Your task to perform on an android device: Do I have any events this weekend? Image 0: 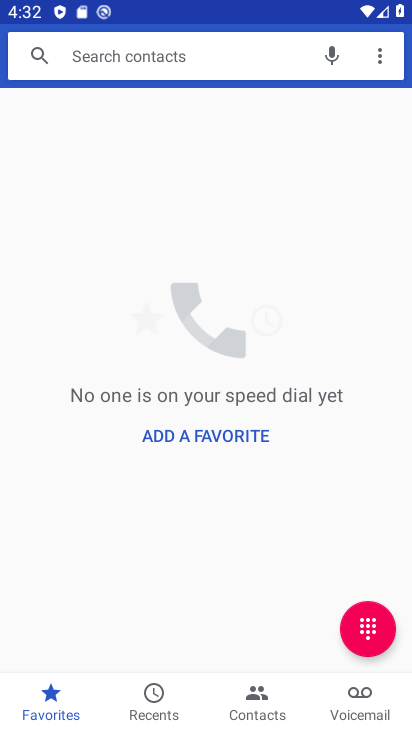
Step 0: press home button
Your task to perform on an android device: Do I have any events this weekend? Image 1: 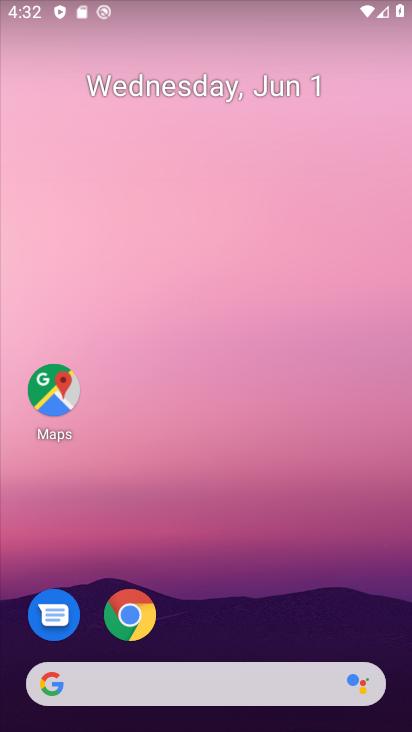
Step 1: drag from (196, 653) to (309, 150)
Your task to perform on an android device: Do I have any events this weekend? Image 2: 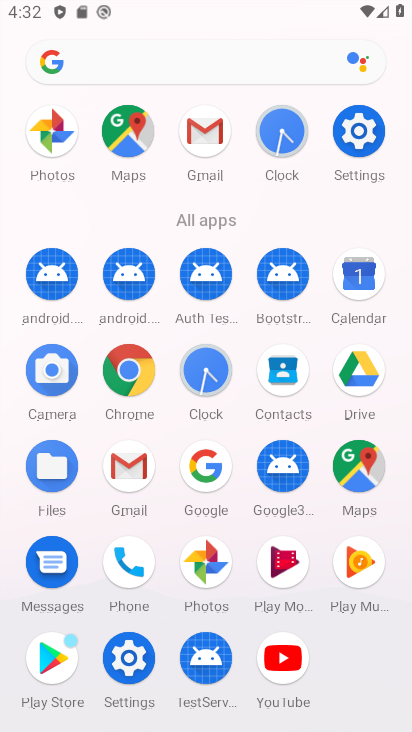
Step 2: drag from (131, 627) to (207, 421)
Your task to perform on an android device: Do I have any events this weekend? Image 3: 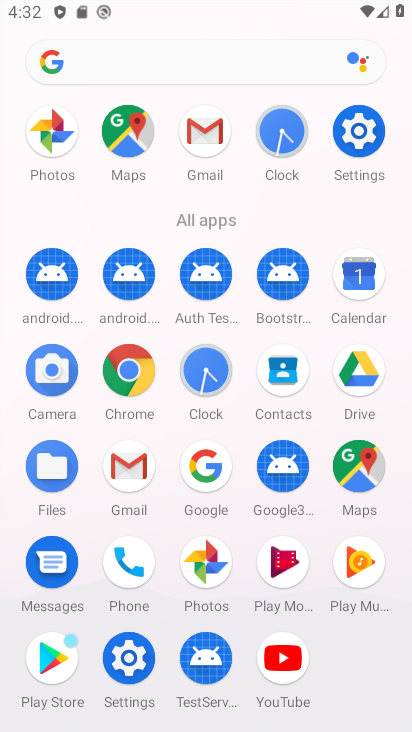
Step 3: click (361, 288)
Your task to perform on an android device: Do I have any events this weekend? Image 4: 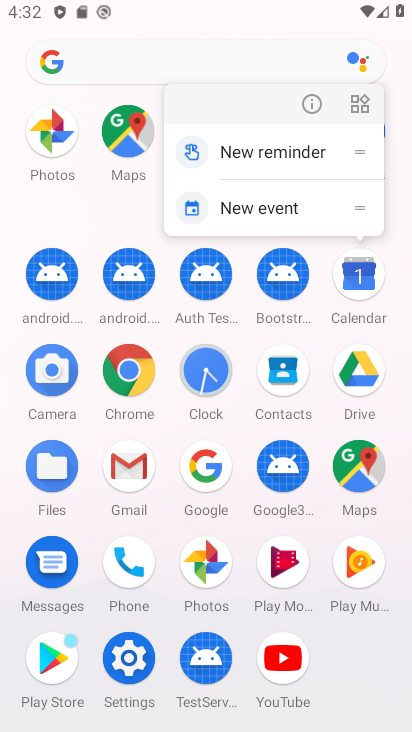
Step 4: click (358, 290)
Your task to perform on an android device: Do I have any events this weekend? Image 5: 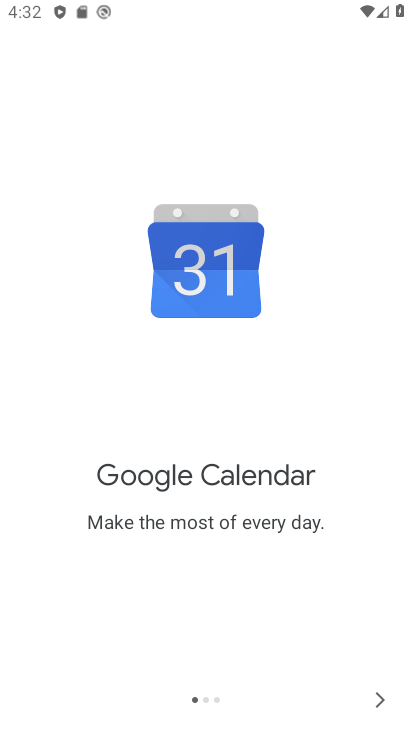
Step 5: click (384, 702)
Your task to perform on an android device: Do I have any events this weekend? Image 6: 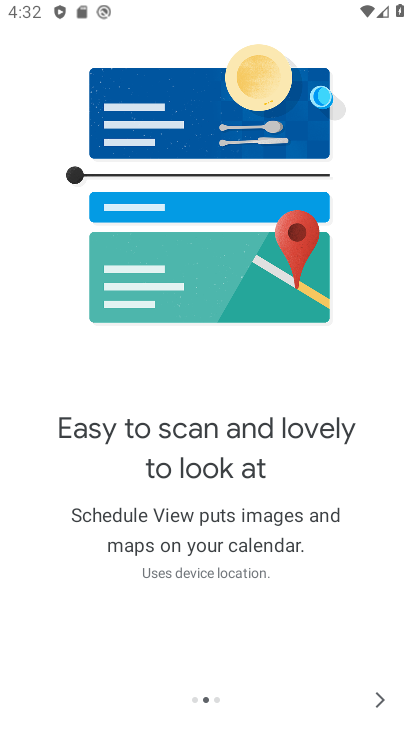
Step 6: click (385, 702)
Your task to perform on an android device: Do I have any events this weekend? Image 7: 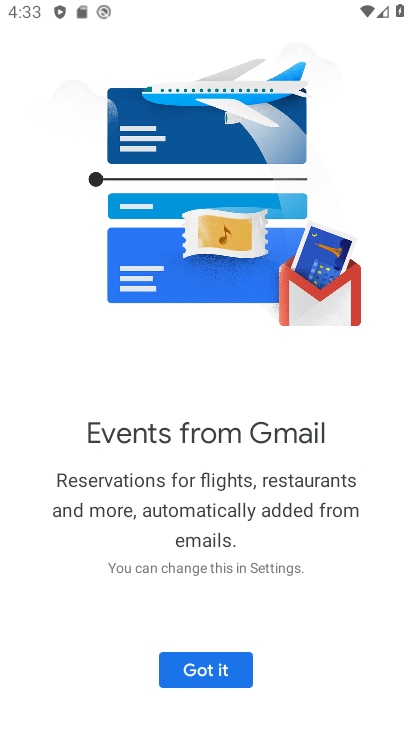
Step 7: click (220, 675)
Your task to perform on an android device: Do I have any events this weekend? Image 8: 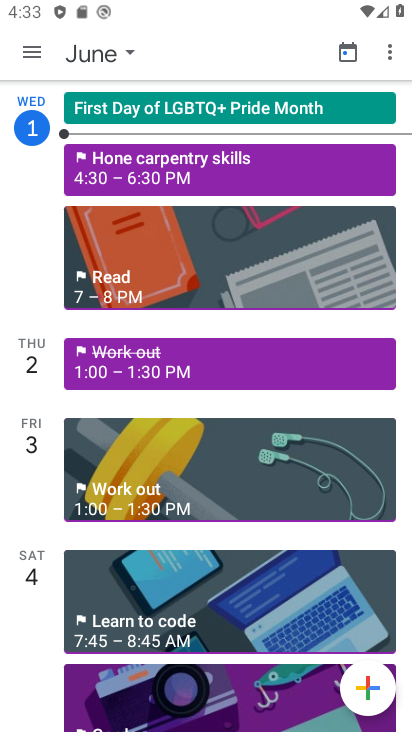
Step 8: drag from (274, 499) to (300, 662)
Your task to perform on an android device: Do I have any events this weekend? Image 9: 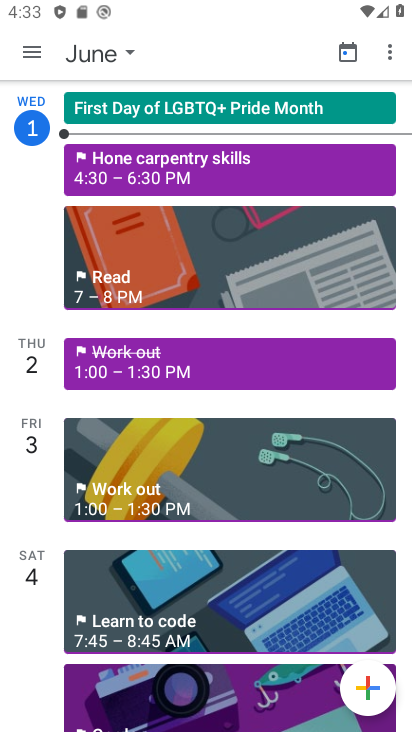
Step 9: click (30, 48)
Your task to perform on an android device: Do I have any events this weekend? Image 10: 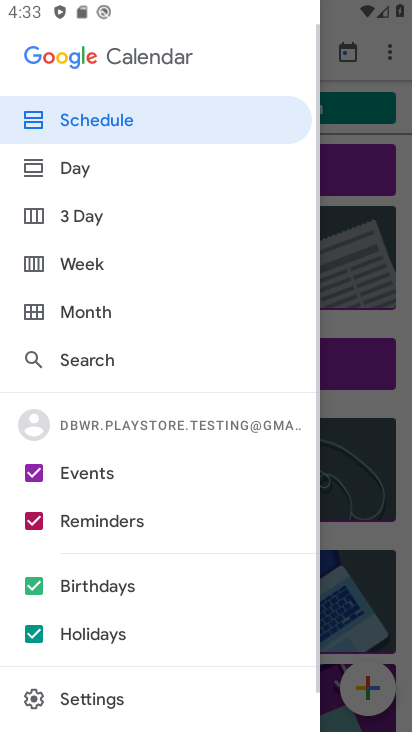
Step 10: click (137, 271)
Your task to perform on an android device: Do I have any events this weekend? Image 11: 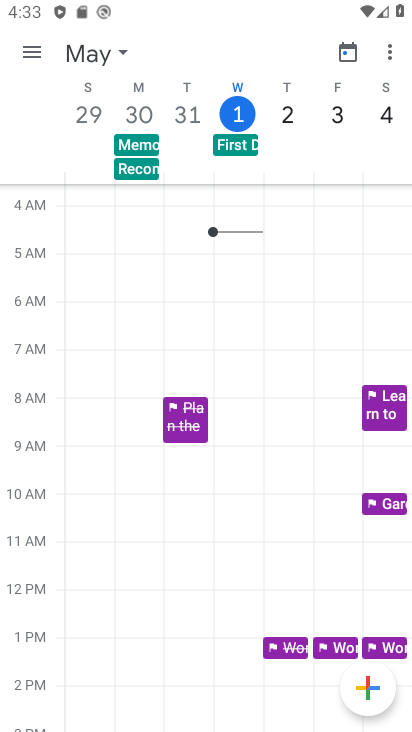
Step 11: task complete